Your task to perform on an android device: Open Chrome and go to settings Image 0: 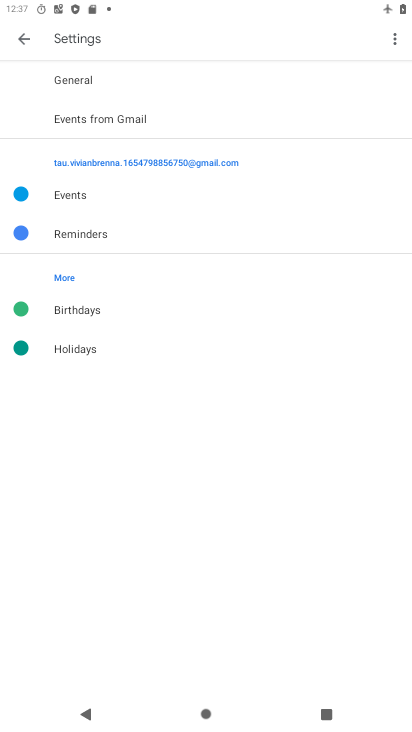
Step 0: press home button
Your task to perform on an android device: Open Chrome and go to settings Image 1: 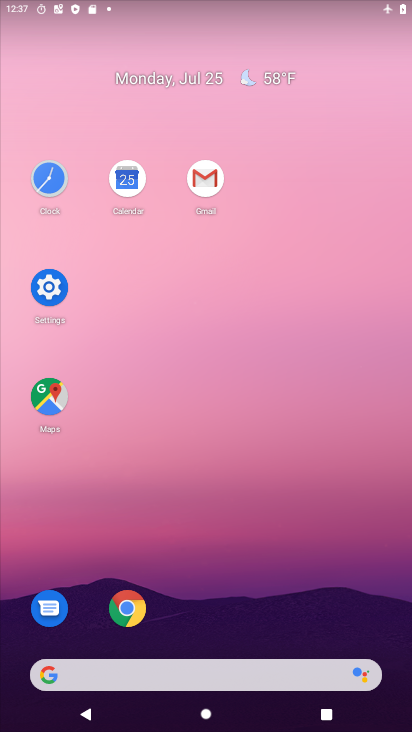
Step 1: click (127, 608)
Your task to perform on an android device: Open Chrome and go to settings Image 2: 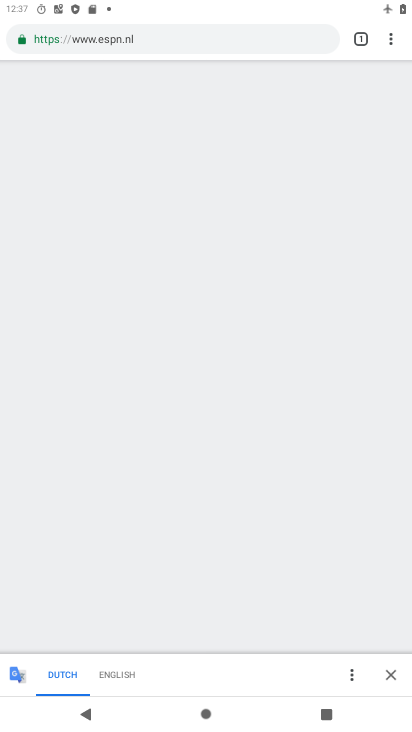
Step 2: click (384, 39)
Your task to perform on an android device: Open Chrome and go to settings Image 3: 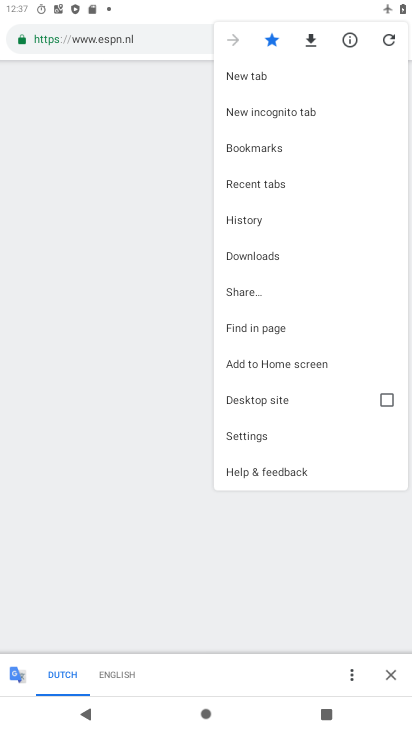
Step 3: click (277, 433)
Your task to perform on an android device: Open Chrome and go to settings Image 4: 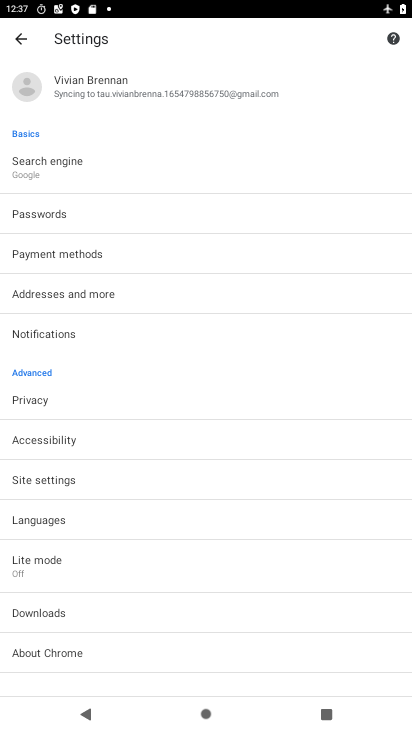
Step 4: task complete